Your task to perform on an android device: search for starred emails in the gmail app Image 0: 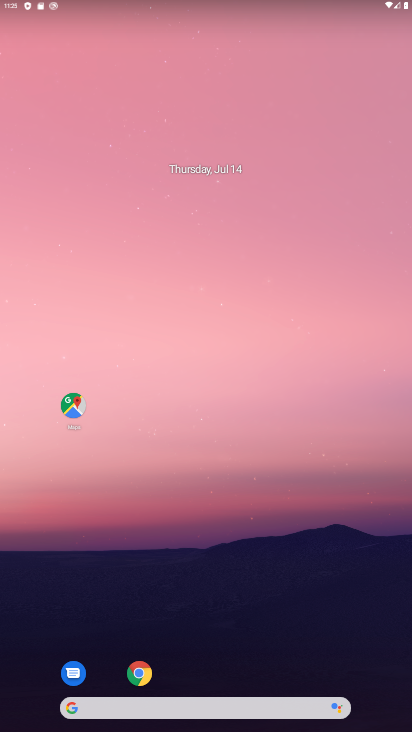
Step 0: drag from (273, 637) to (231, 105)
Your task to perform on an android device: search for starred emails in the gmail app Image 1: 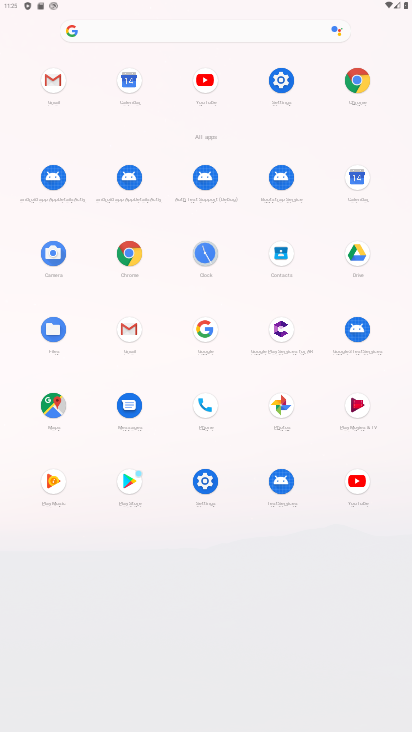
Step 1: click (130, 334)
Your task to perform on an android device: search for starred emails in the gmail app Image 2: 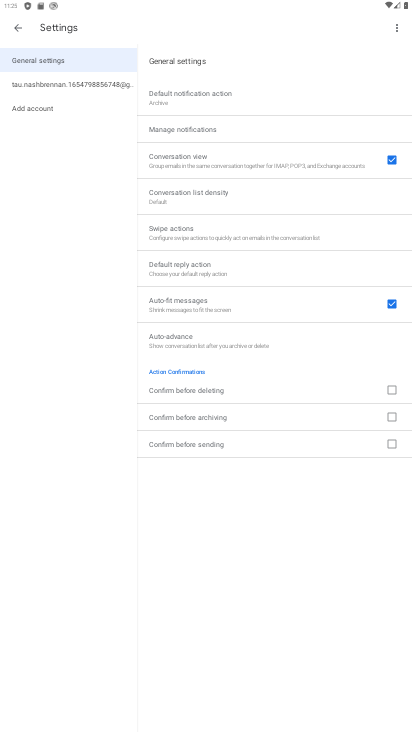
Step 2: click (18, 26)
Your task to perform on an android device: search for starred emails in the gmail app Image 3: 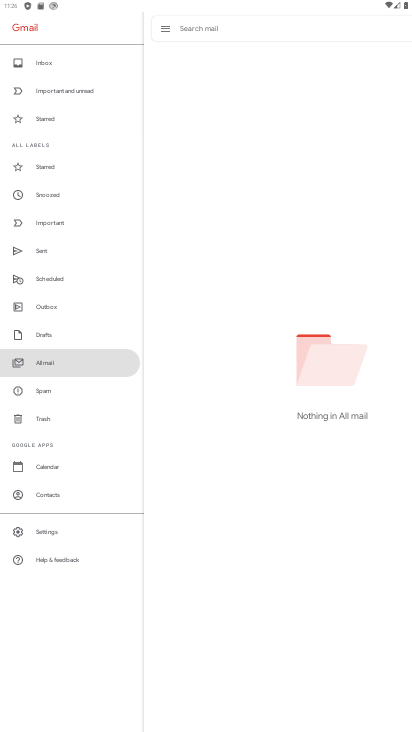
Step 3: task complete